Your task to perform on an android device: find snoozed emails in the gmail app Image 0: 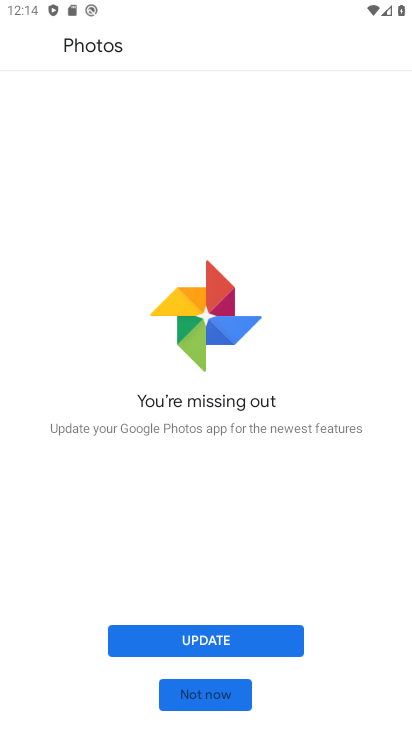
Step 0: press home button
Your task to perform on an android device: find snoozed emails in the gmail app Image 1: 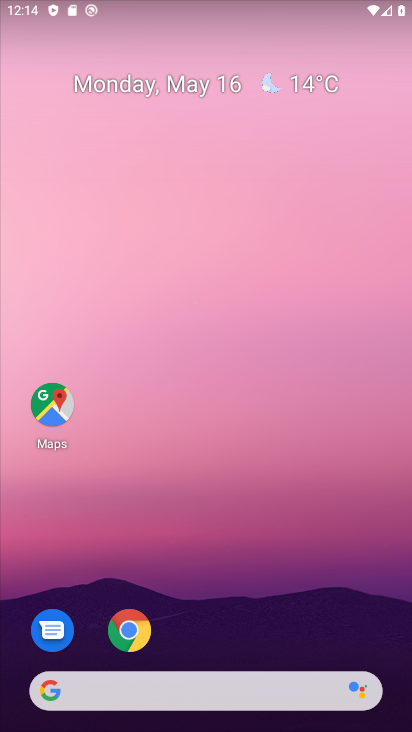
Step 1: drag from (288, 544) to (310, 6)
Your task to perform on an android device: find snoozed emails in the gmail app Image 2: 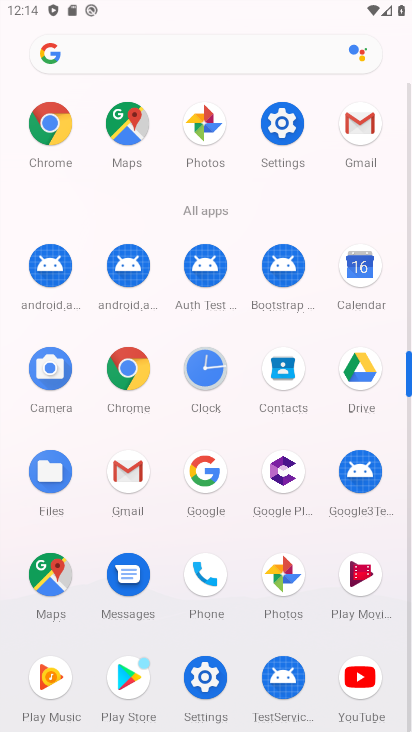
Step 2: click (140, 481)
Your task to perform on an android device: find snoozed emails in the gmail app Image 3: 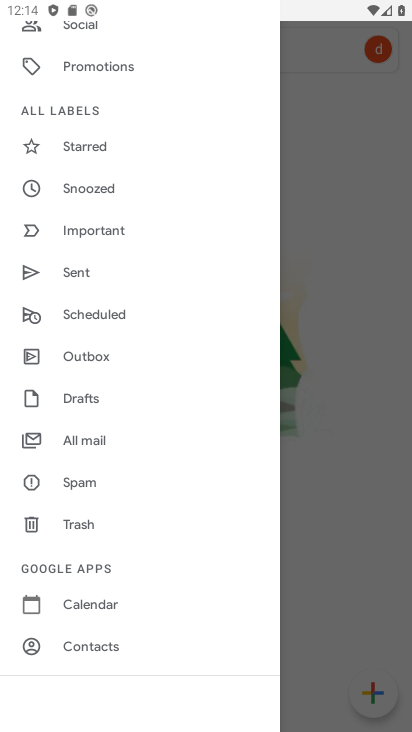
Step 3: click (127, 187)
Your task to perform on an android device: find snoozed emails in the gmail app Image 4: 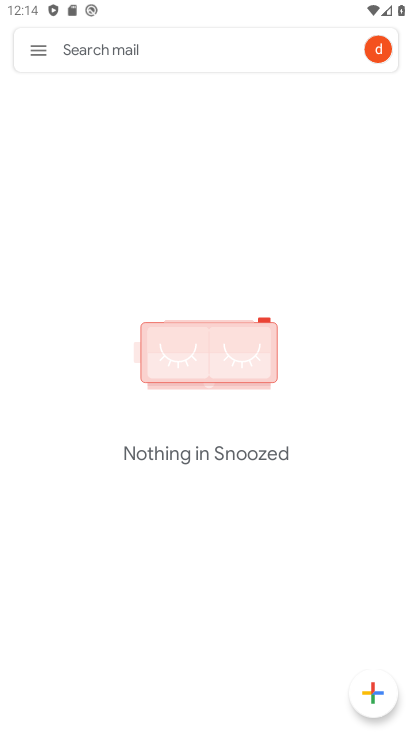
Step 4: task complete